Your task to perform on an android device: Search for panasonic triple a on newegg.com, select the first entry, and add it to the cart. Image 0: 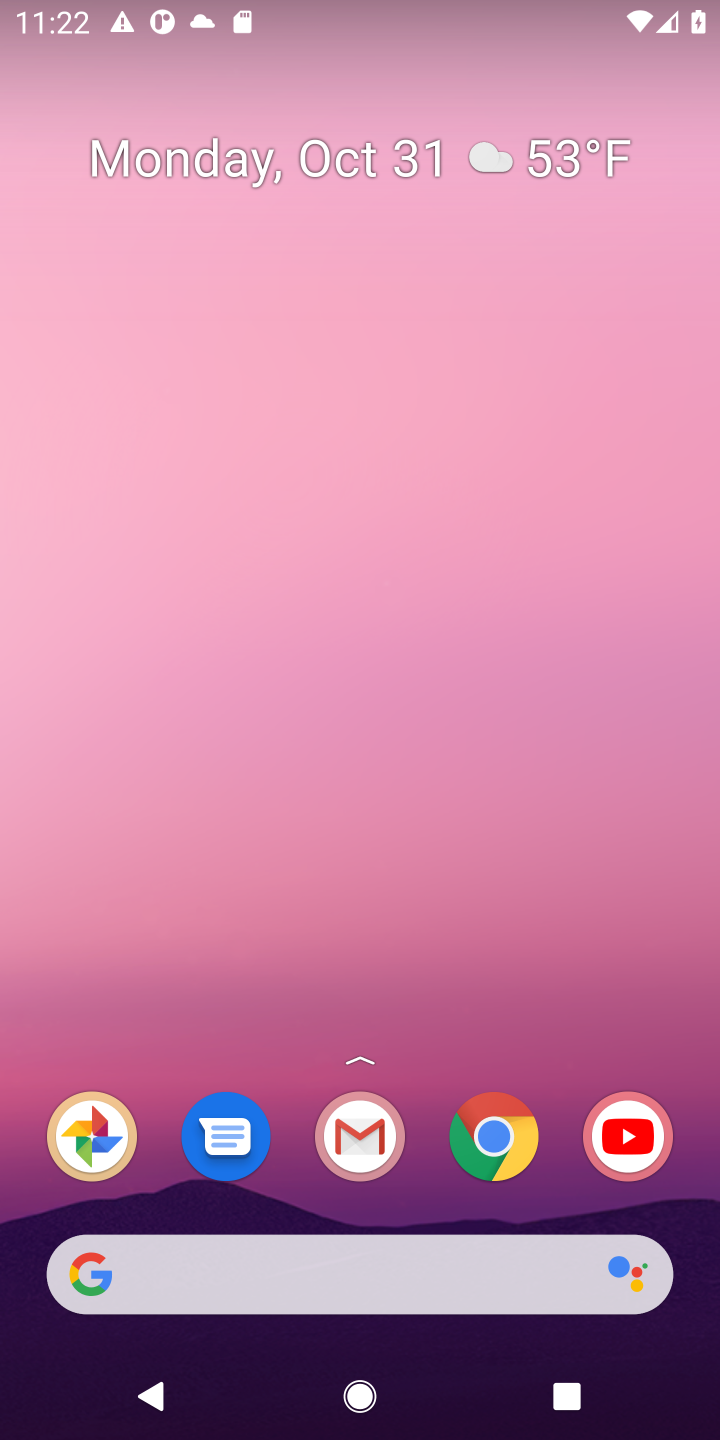
Step 0: press home button
Your task to perform on an android device: Search for panasonic triple a on newegg.com, select the first entry, and add it to the cart. Image 1: 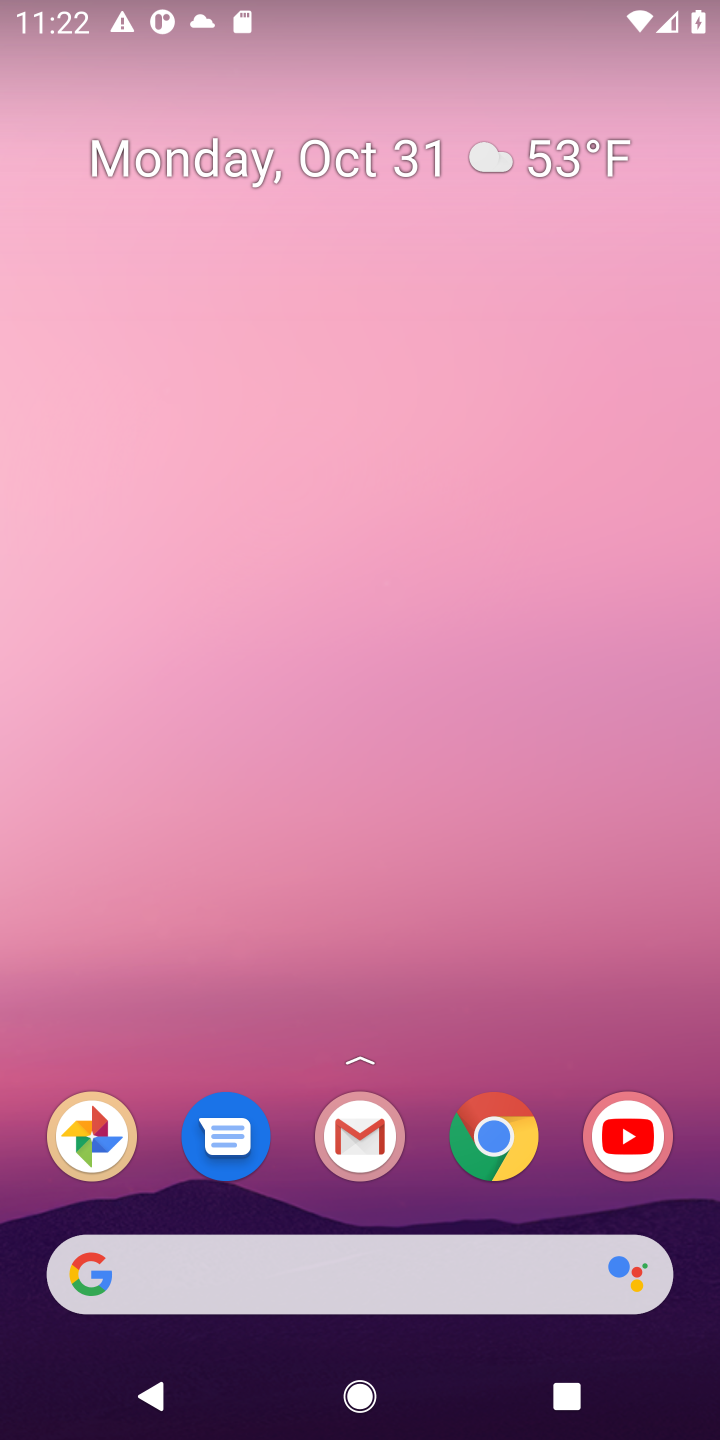
Step 1: click (136, 1263)
Your task to perform on an android device: Search for panasonic triple a on newegg.com, select the first entry, and add it to the cart. Image 2: 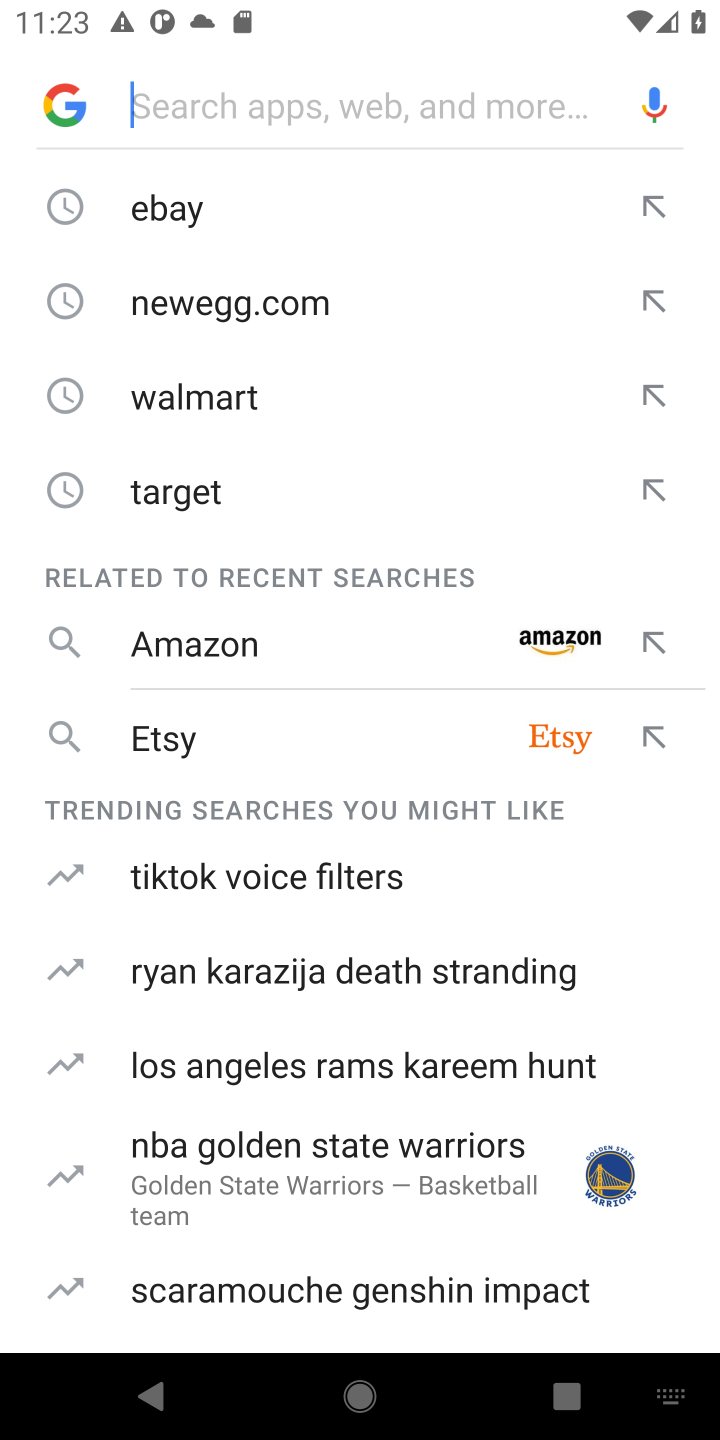
Step 2: type "newegg.com,"
Your task to perform on an android device: Search for panasonic triple a on newegg.com, select the first entry, and add it to the cart. Image 3: 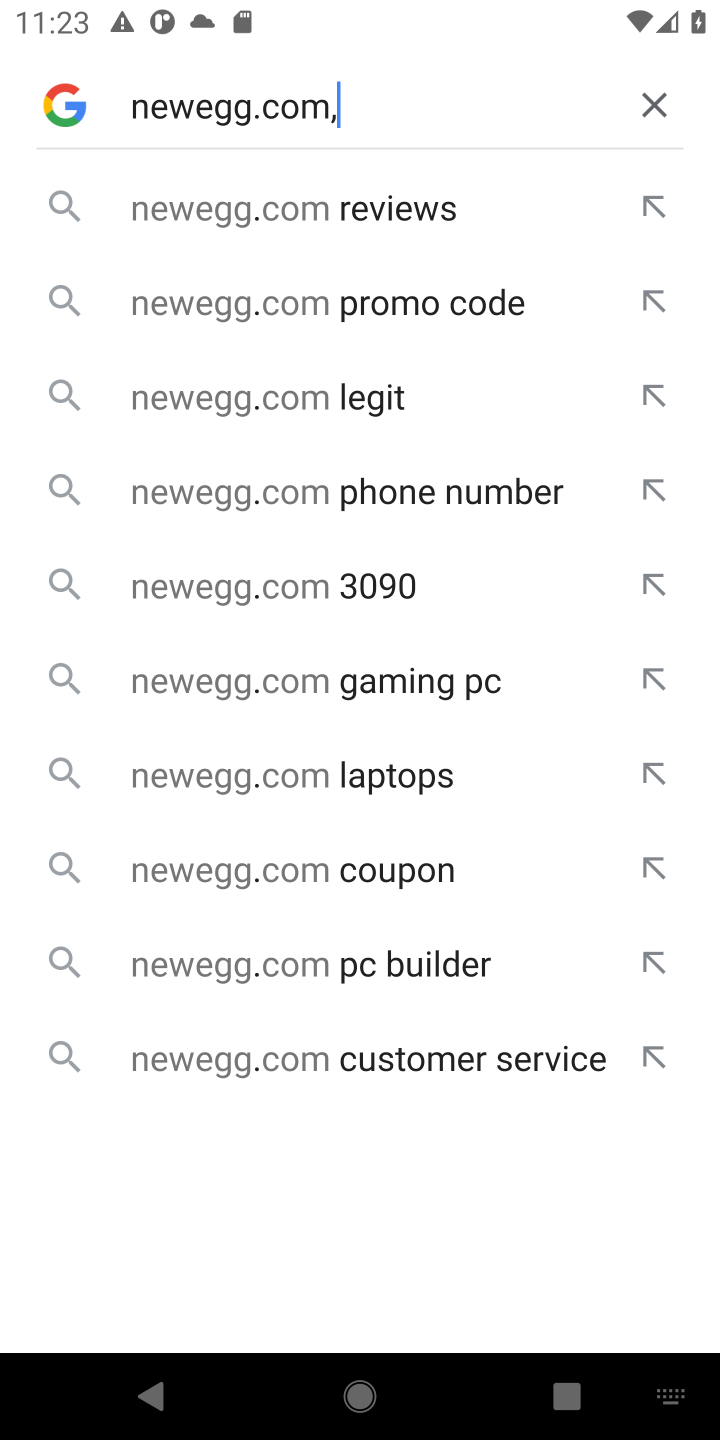
Step 3: press enter
Your task to perform on an android device: Search for panasonic triple a on newegg.com, select the first entry, and add it to the cart. Image 4: 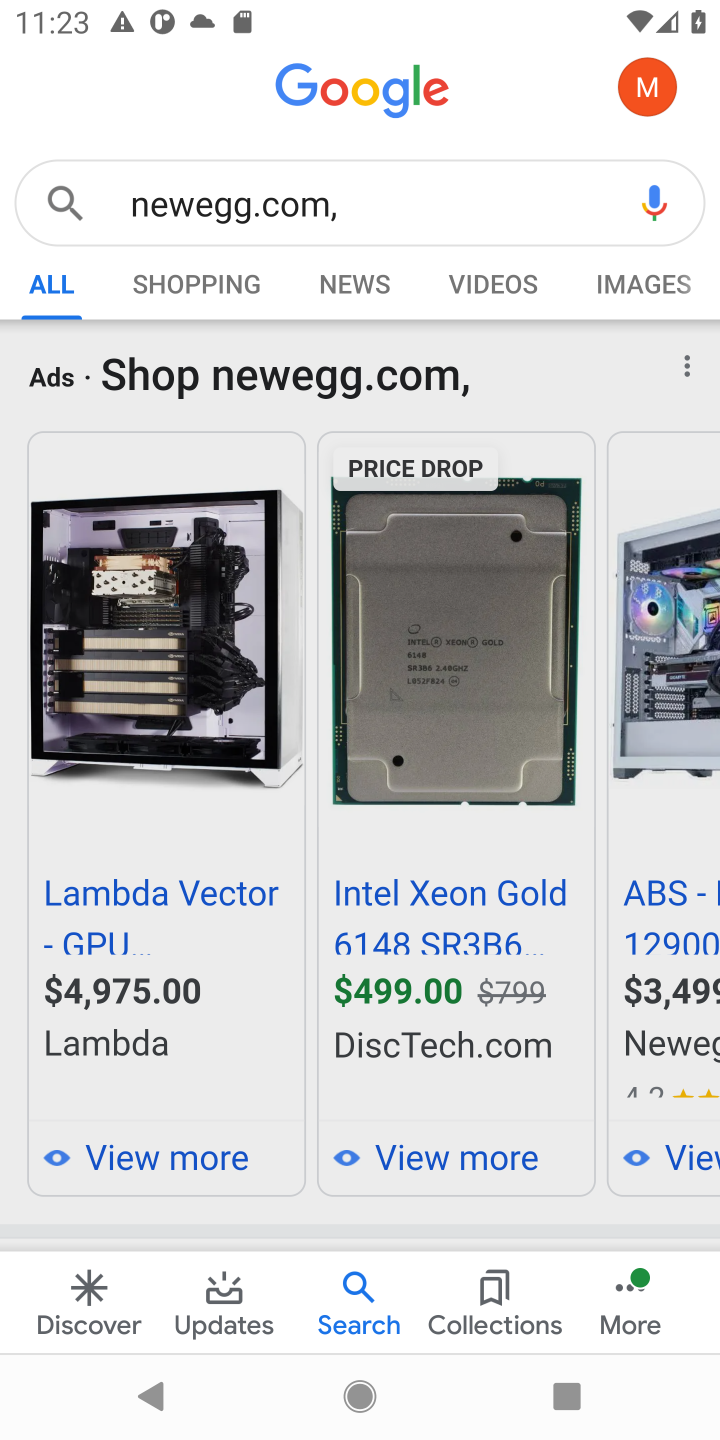
Step 4: drag from (261, 1068) to (346, 497)
Your task to perform on an android device: Search for panasonic triple a on newegg.com, select the first entry, and add it to the cart. Image 5: 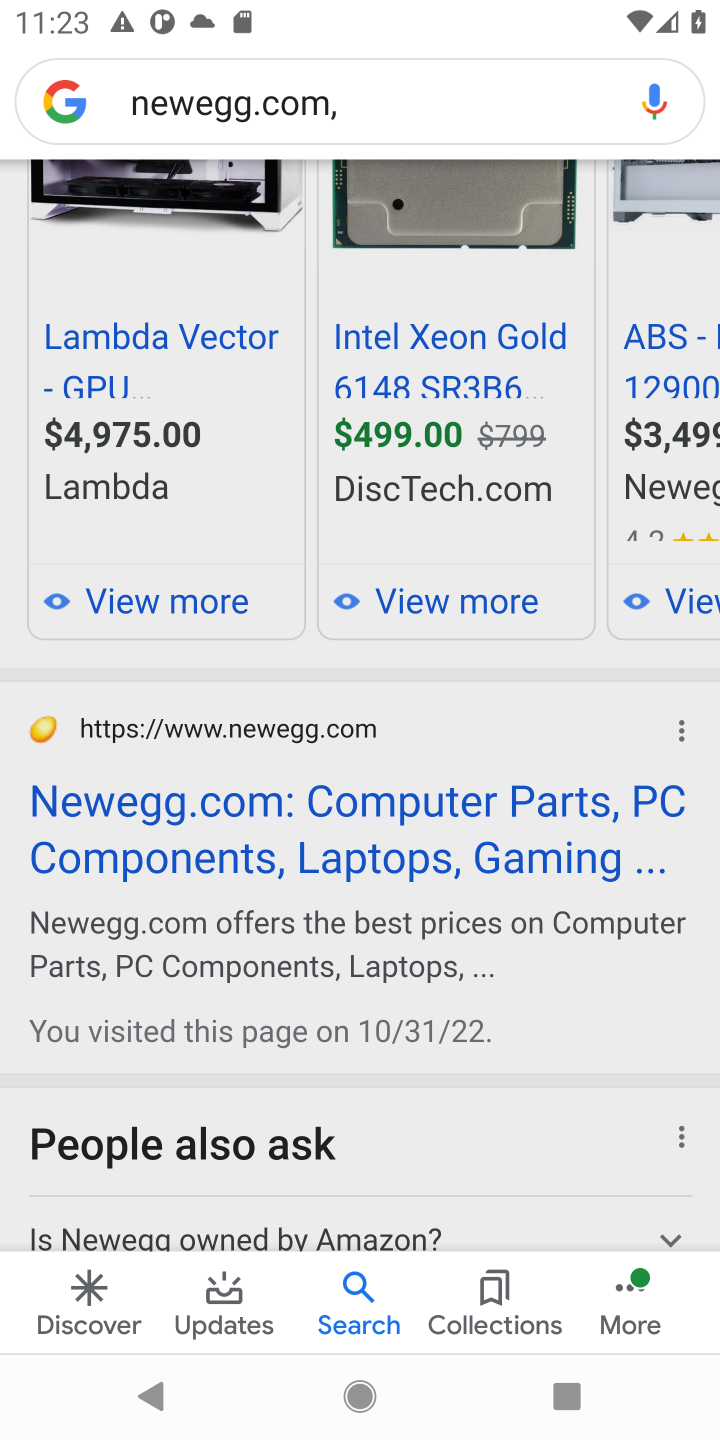
Step 5: drag from (391, 1101) to (438, 460)
Your task to perform on an android device: Search for panasonic triple a on newegg.com, select the first entry, and add it to the cart. Image 6: 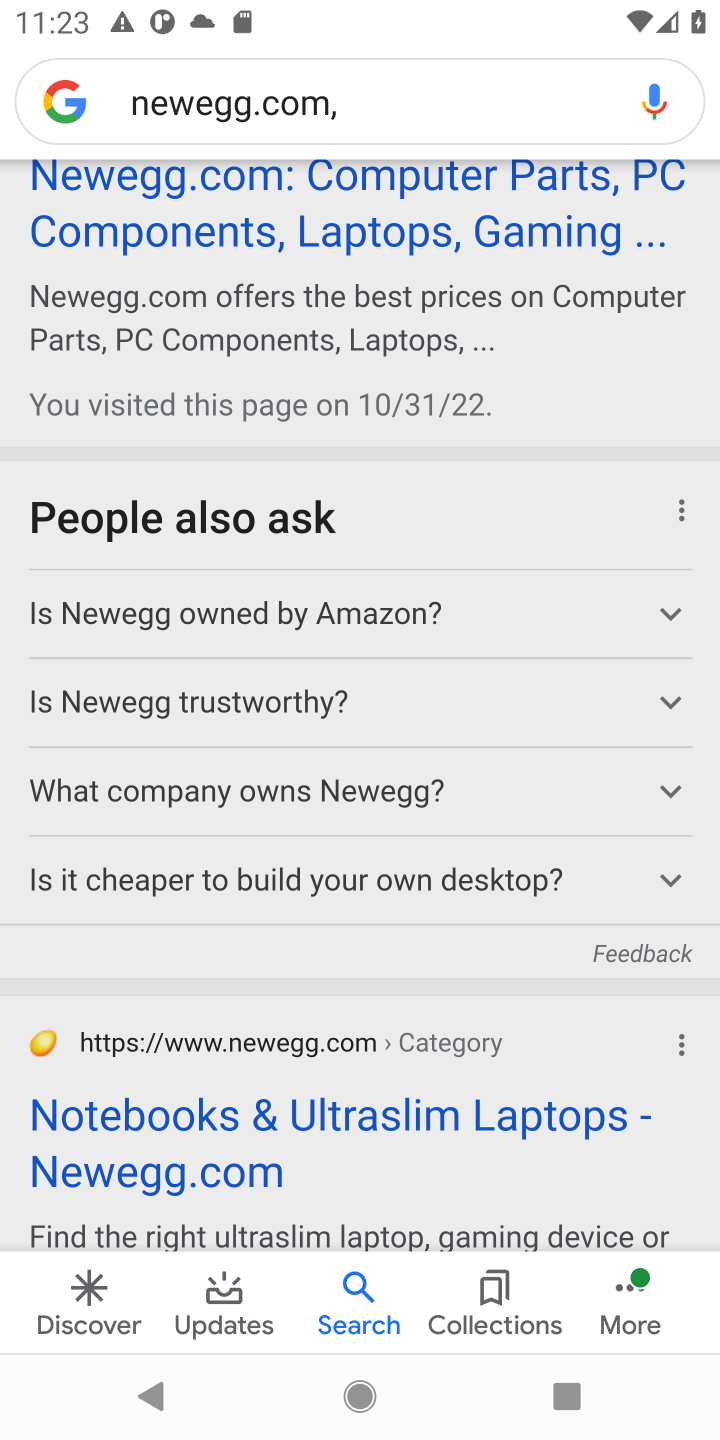
Step 6: drag from (379, 1052) to (455, 499)
Your task to perform on an android device: Search for panasonic triple a on newegg.com, select the first entry, and add it to the cart. Image 7: 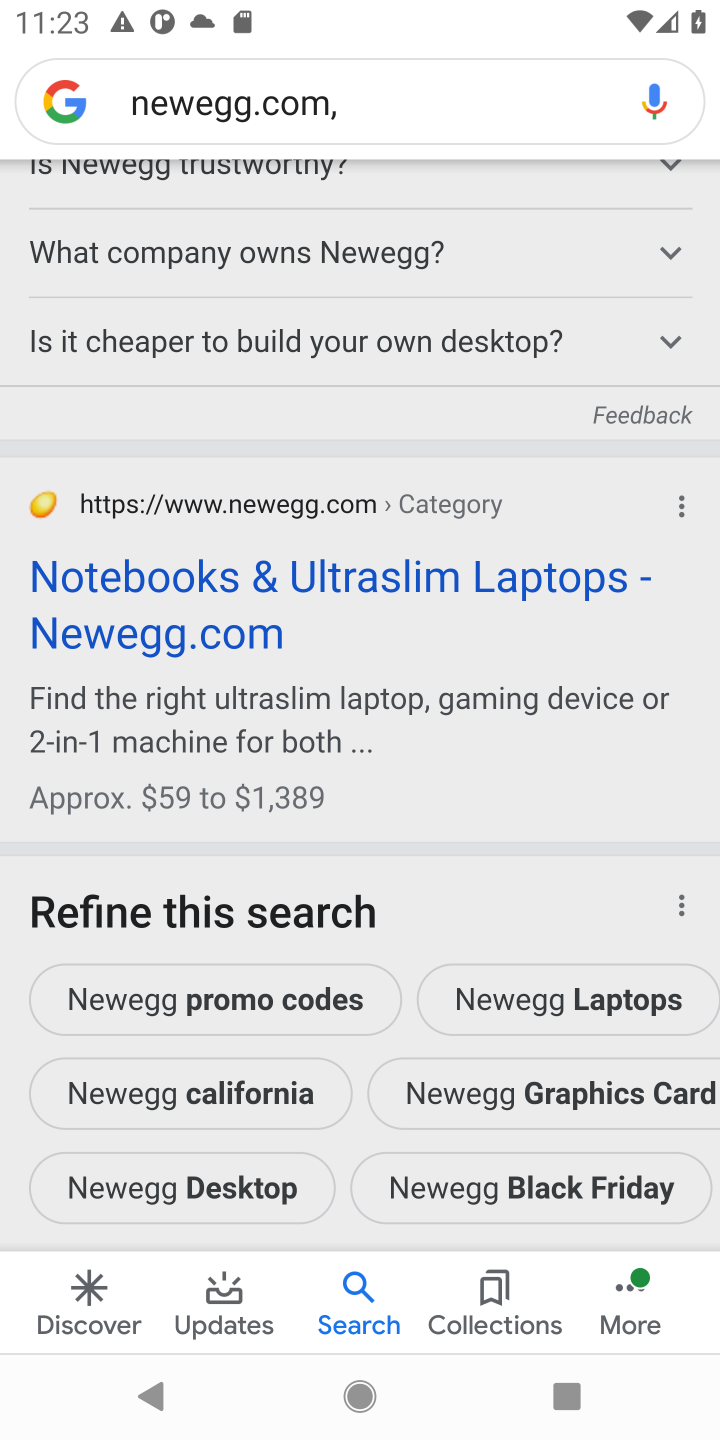
Step 7: click (318, 589)
Your task to perform on an android device: Search for panasonic triple a on newegg.com, select the first entry, and add it to the cart. Image 8: 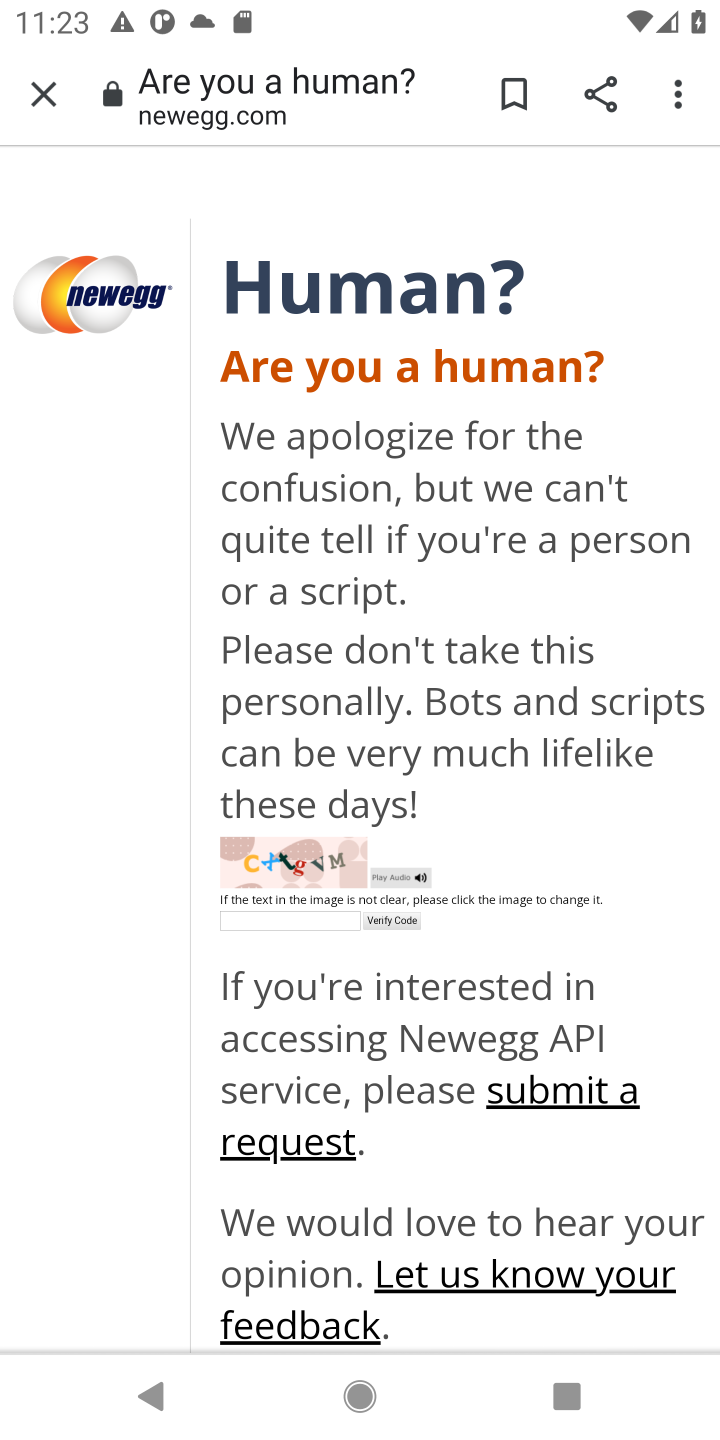
Step 8: task complete